Your task to perform on an android device: See recent photos Image 0: 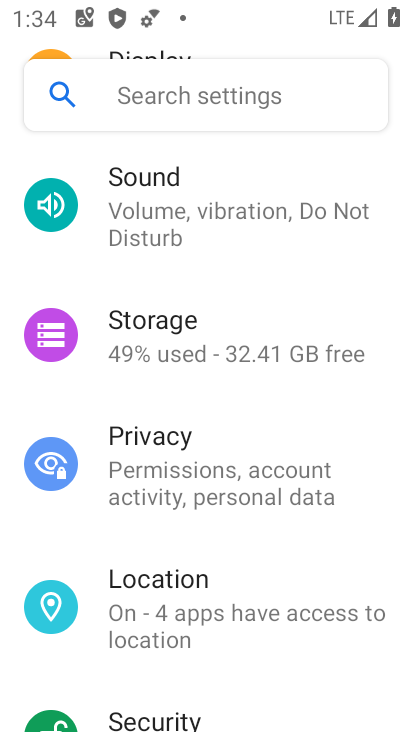
Step 0: press home button
Your task to perform on an android device: See recent photos Image 1: 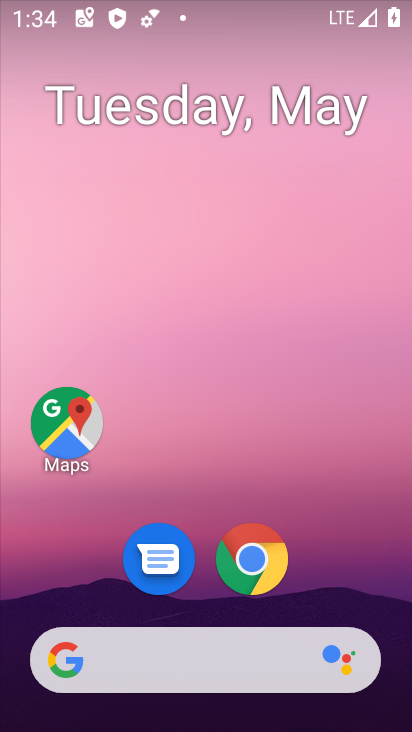
Step 1: drag from (347, 559) to (289, 175)
Your task to perform on an android device: See recent photos Image 2: 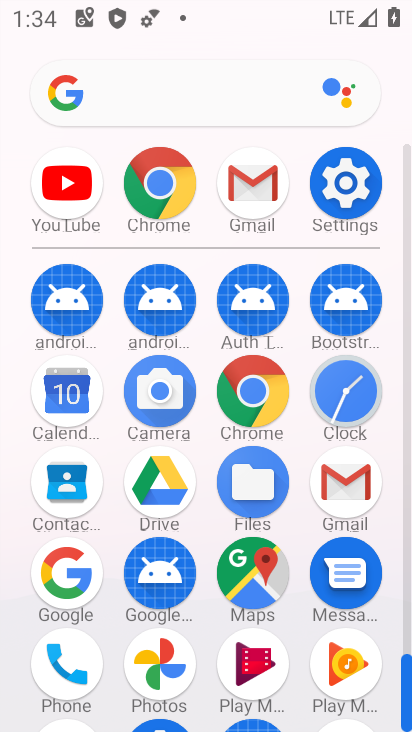
Step 2: click (167, 658)
Your task to perform on an android device: See recent photos Image 3: 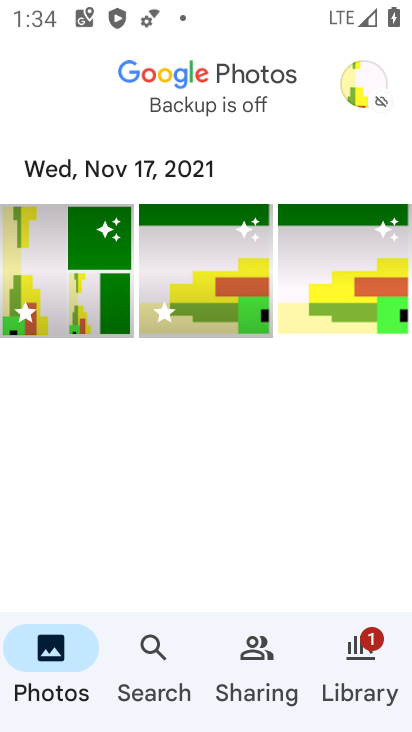
Step 3: task complete